Your task to perform on an android device: check data usage Image 0: 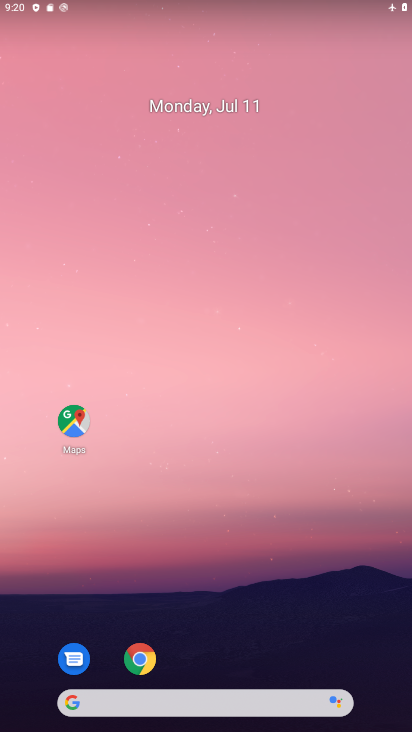
Step 0: drag from (213, 666) to (194, 182)
Your task to perform on an android device: check data usage Image 1: 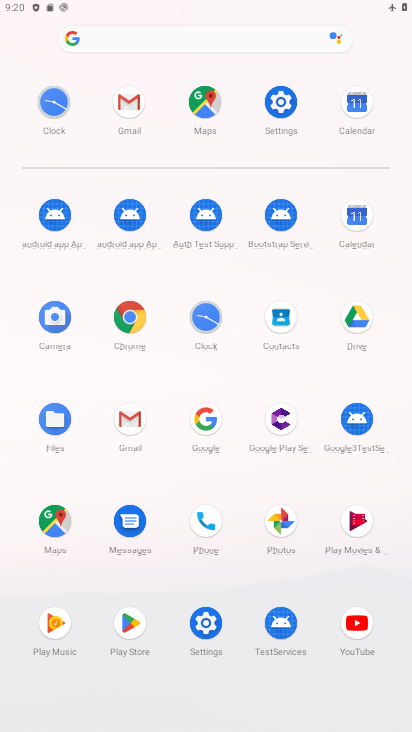
Step 1: click (284, 119)
Your task to perform on an android device: check data usage Image 2: 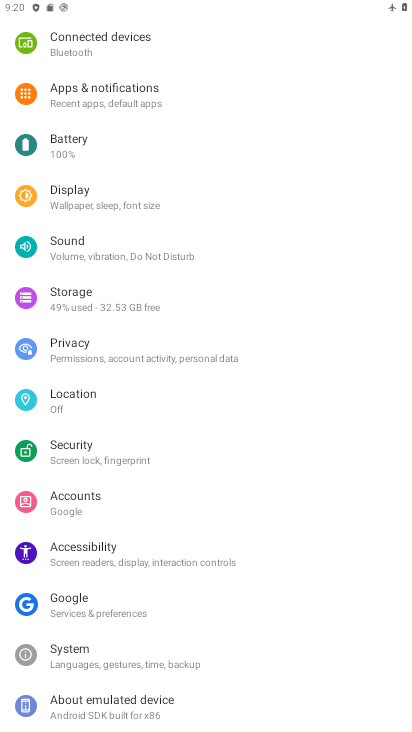
Step 2: drag from (193, 231) to (188, 491)
Your task to perform on an android device: check data usage Image 3: 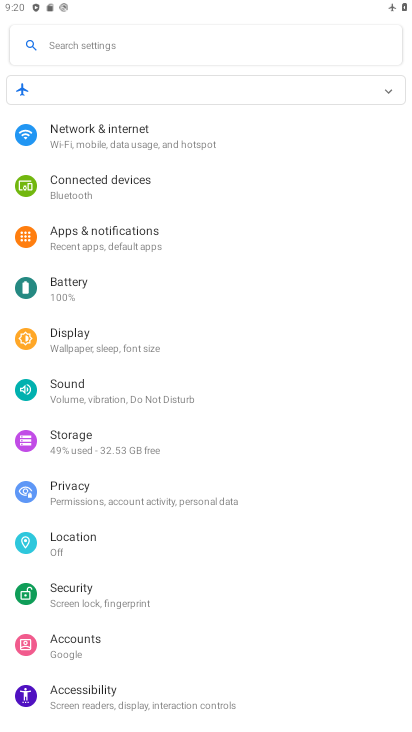
Step 3: click (130, 127)
Your task to perform on an android device: check data usage Image 4: 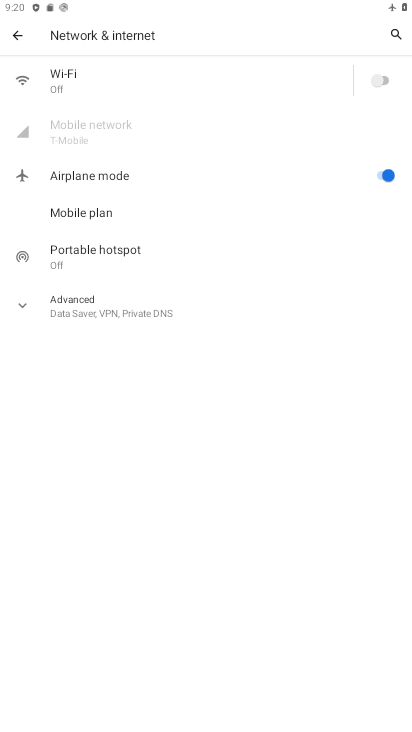
Step 4: task complete